Your task to perform on an android device: toggle show notifications on the lock screen Image 0: 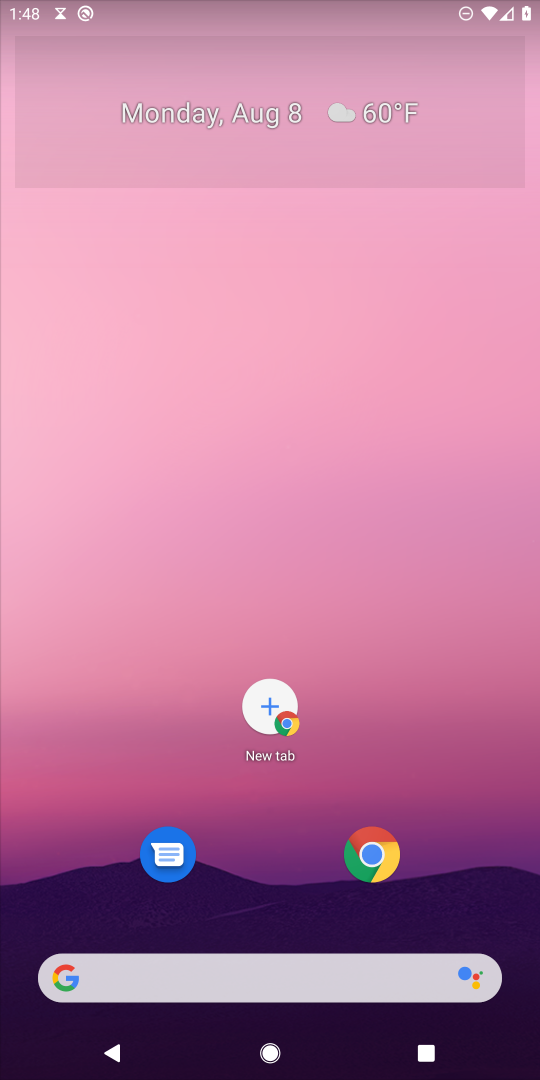
Step 0: press home button
Your task to perform on an android device: toggle show notifications on the lock screen Image 1: 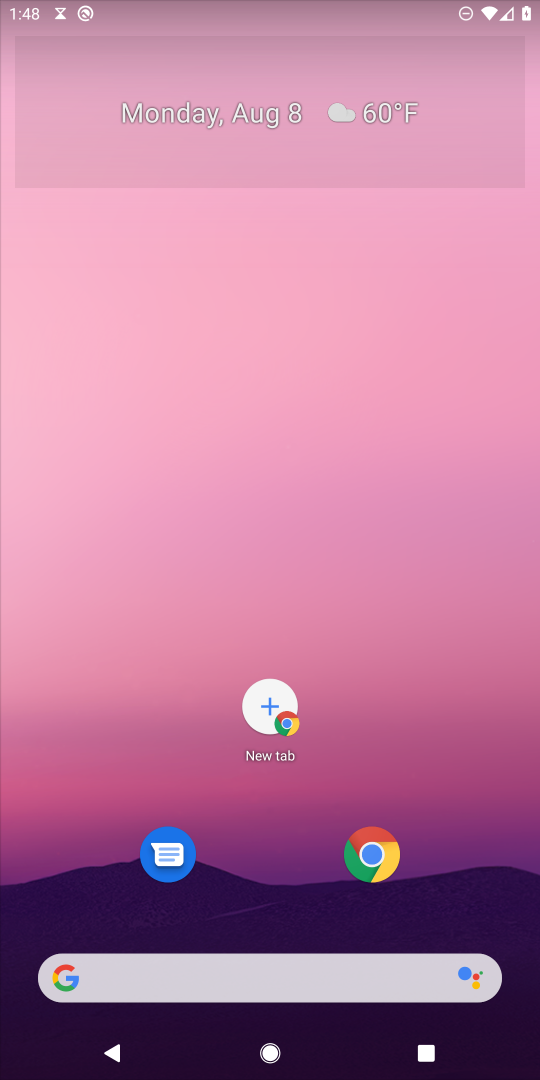
Step 1: drag from (453, 866) to (510, 124)
Your task to perform on an android device: toggle show notifications on the lock screen Image 2: 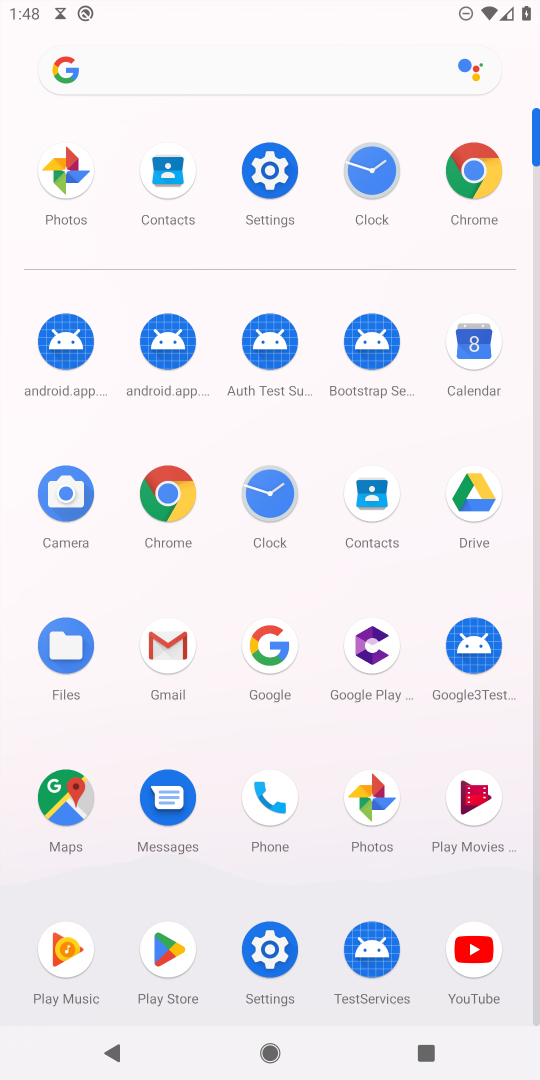
Step 2: click (262, 170)
Your task to perform on an android device: toggle show notifications on the lock screen Image 3: 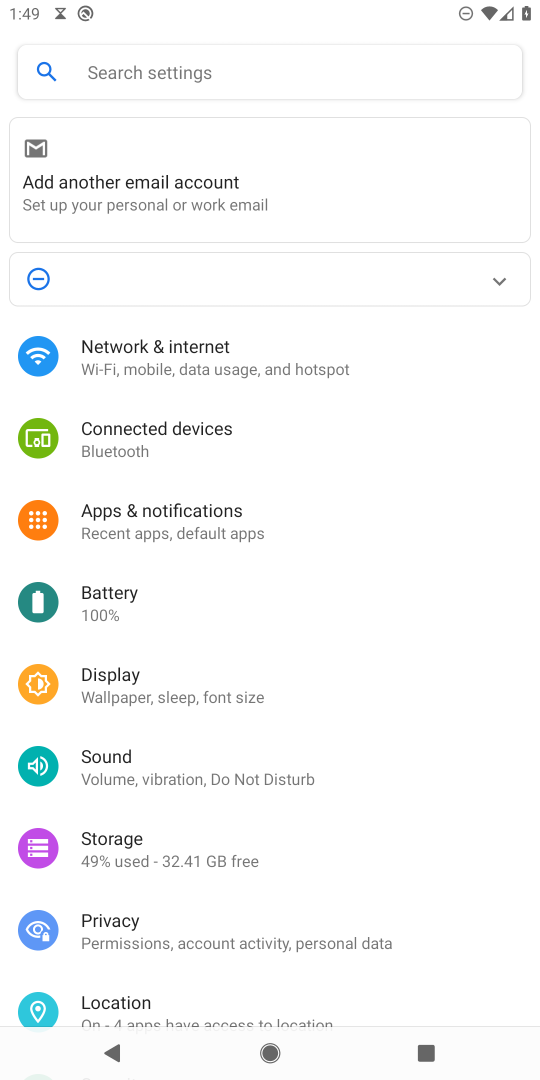
Step 3: click (137, 522)
Your task to perform on an android device: toggle show notifications on the lock screen Image 4: 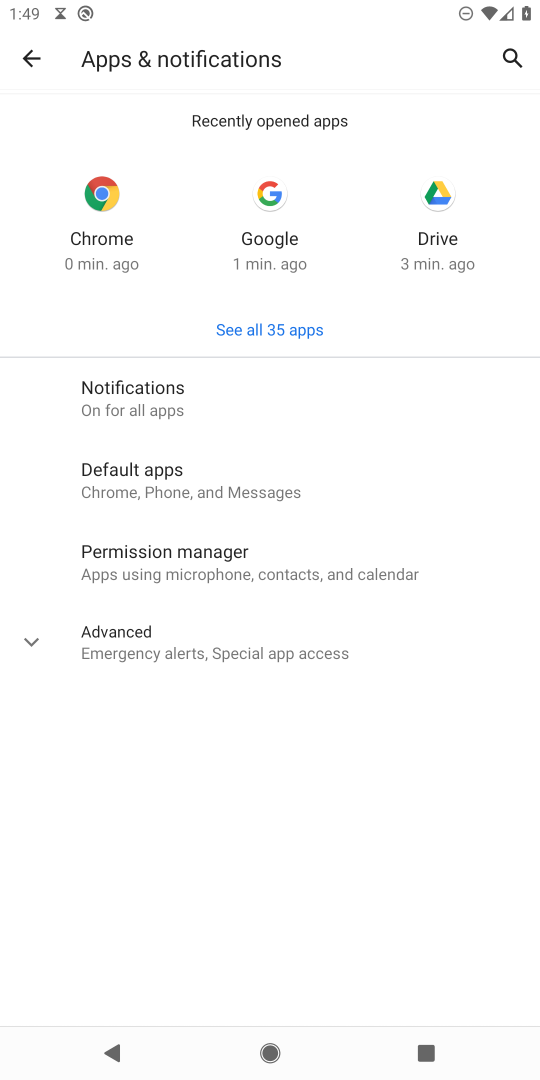
Step 4: click (142, 402)
Your task to perform on an android device: toggle show notifications on the lock screen Image 5: 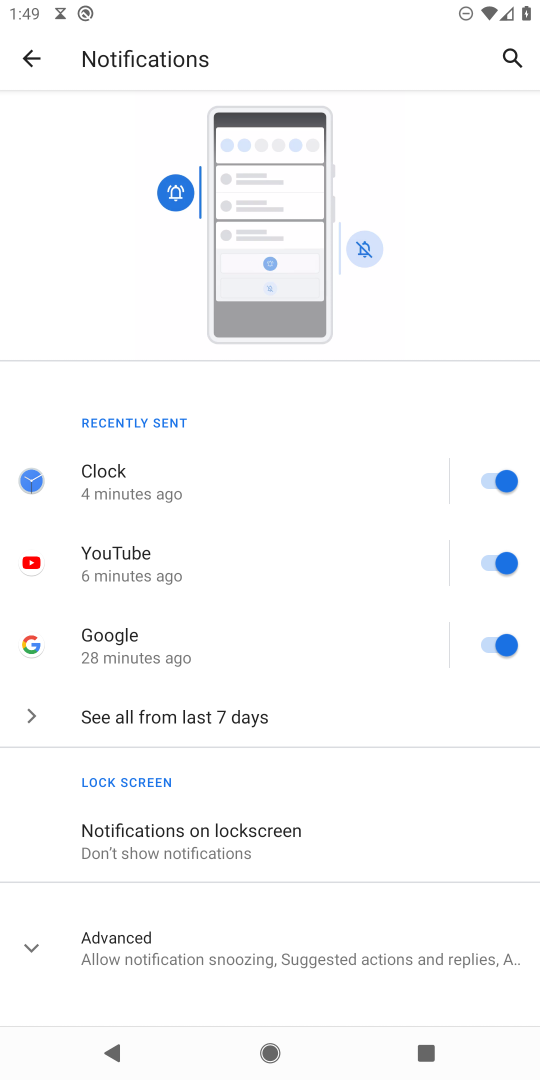
Step 5: click (214, 841)
Your task to perform on an android device: toggle show notifications on the lock screen Image 6: 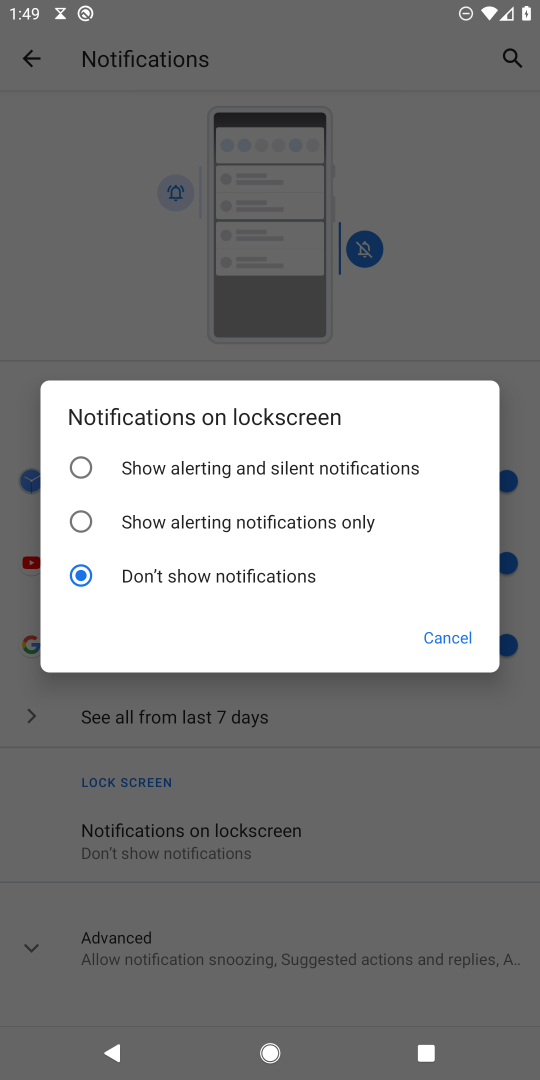
Step 6: task complete